Your task to perform on an android device: change notification settings in the gmail app Image 0: 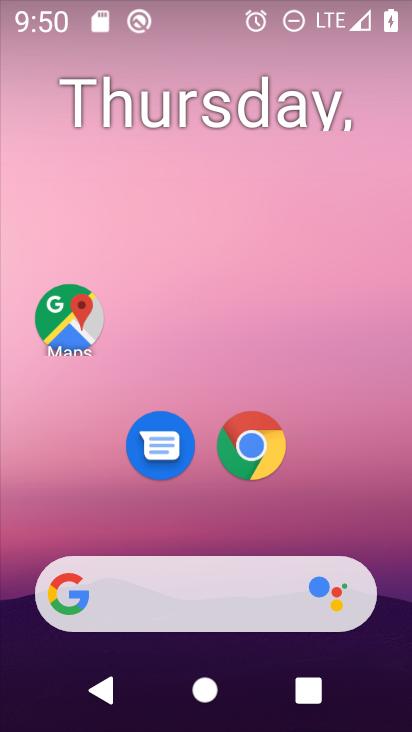
Step 0: click (402, 627)
Your task to perform on an android device: change notification settings in the gmail app Image 1: 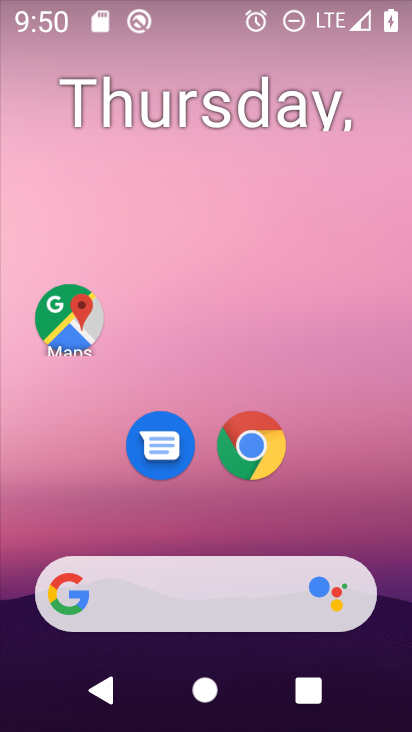
Step 1: click (272, 68)
Your task to perform on an android device: change notification settings in the gmail app Image 2: 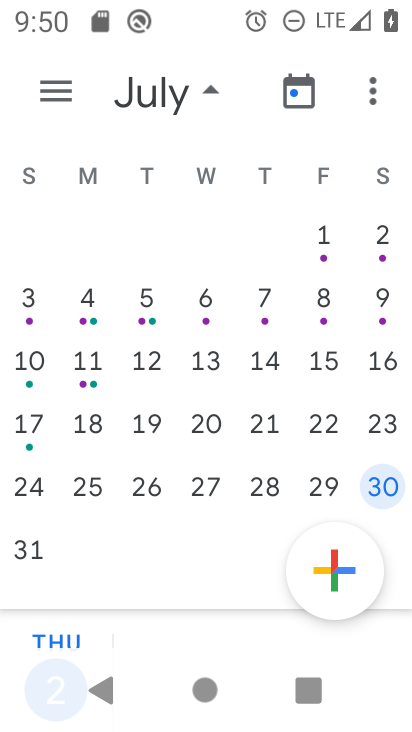
Step 2: press home button
Your task to perform on an android device: change notification settings in the gmail app Image 3: 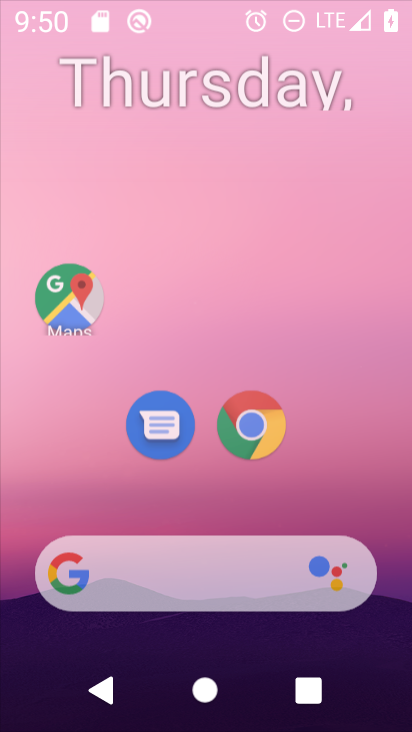
Step 3: drag from (341, 652) to (298, 50)
Your task to perform on an android device: change notification settings in the gmail app Image 4: 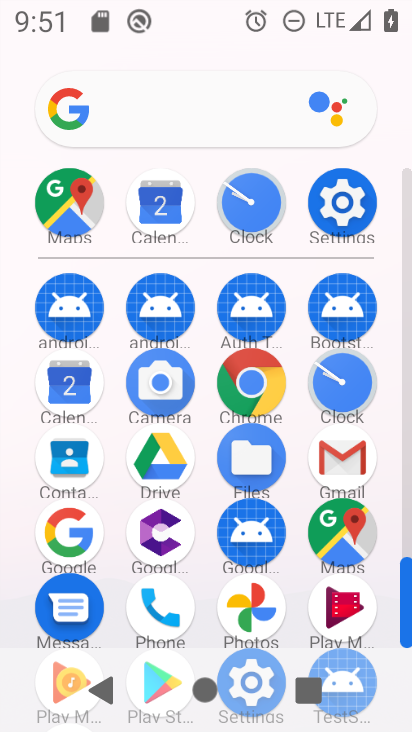
Step 4: click (309, 462)
Your task to perform on an android device: change notification settings in the gmail app Image 5: 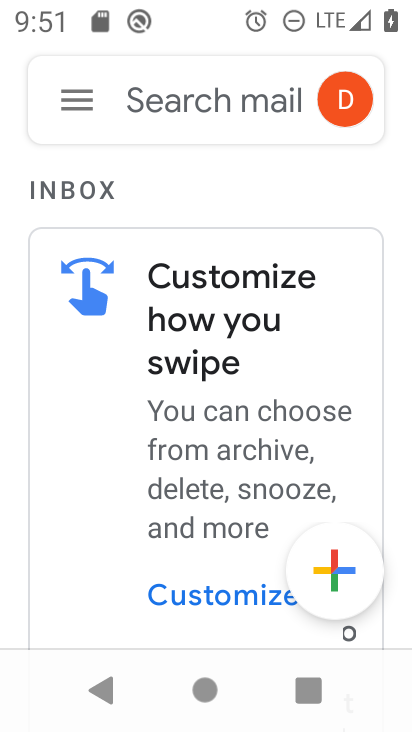
Step 5: click (87, 97)
Your task to perform on an android device: change notification settings in the gmail app Image 6: 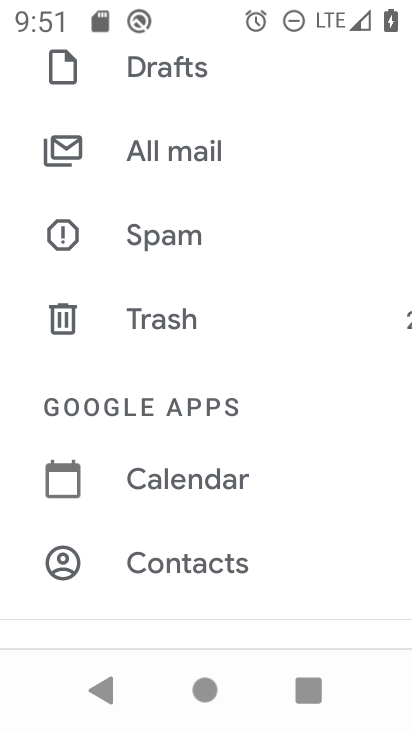
Step 6: drag from (248, 461) to (277, 7)
Your task to perform on an android device: change notification settings in the gmail app Image 7: 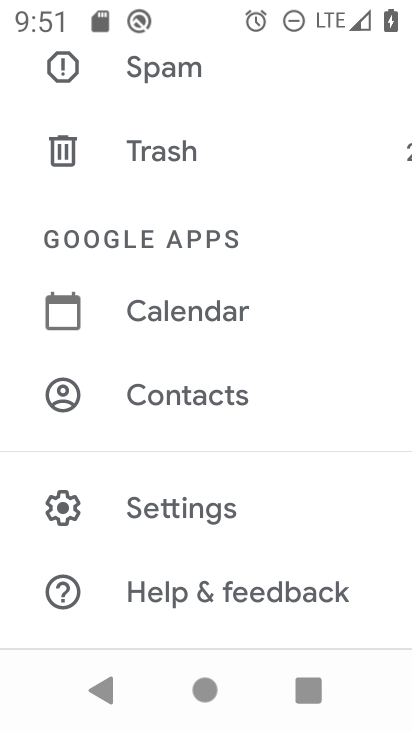
Step 7: click (296, 495)
Your task to perform on an android device: change notification settings in the gmail app Image 8: 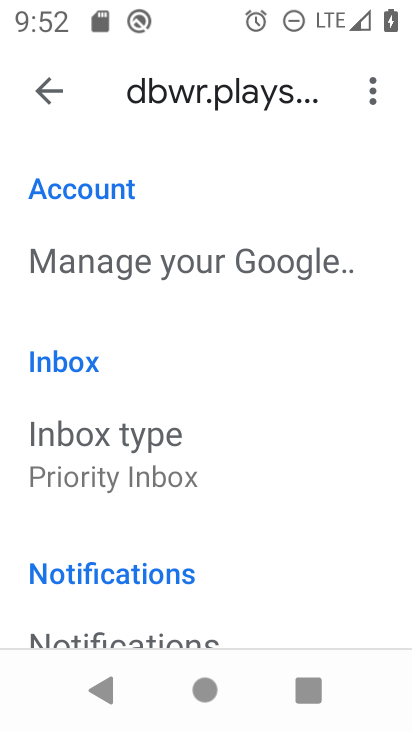
Step 8: click (209, 639)
Your task to perform on an android device: change notification settings in the gmail app Image 9: 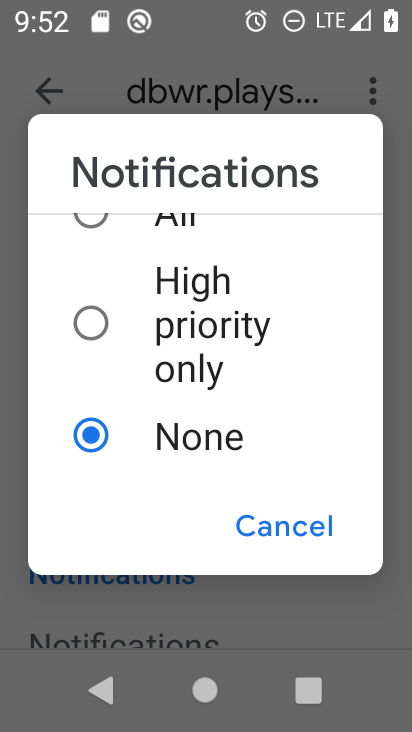
Step 9: click (94, 222)
Your task to perform on an android device: change notification settings in the gmail app Image 10: 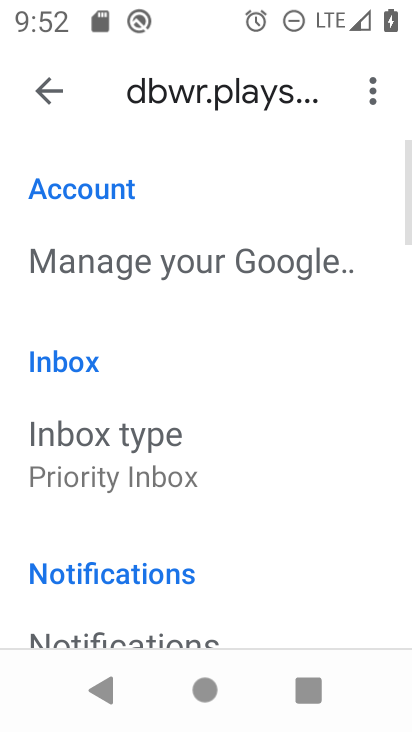
Step 10: task complete